Your task to perform on an android device: Check the weather Image 0: 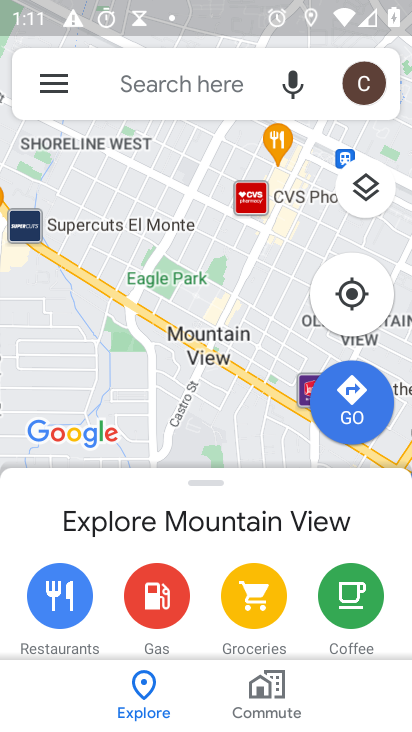
Step 0: press home button
Your task to perform on an android device: Check the weather Image 1: 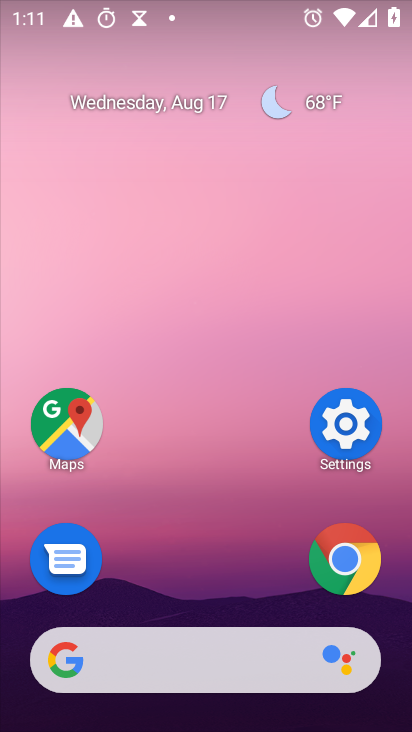
Step 1: click (156, 672)
Your task to perform on an android device: Check the weather Image 2: 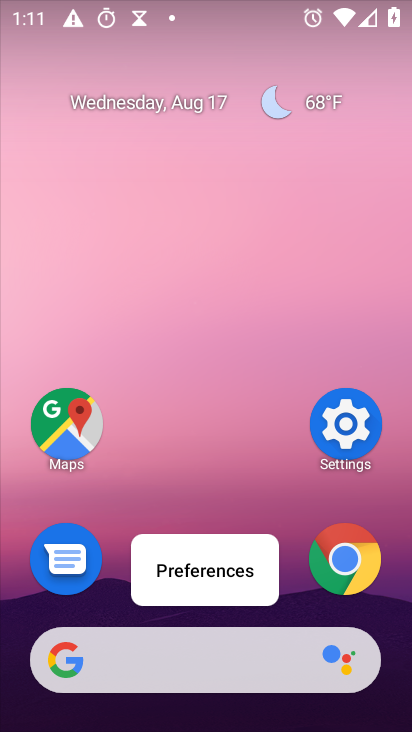
Step 2: click (169, 645)
Your task to perform on an android device: Check the weather Image 3: 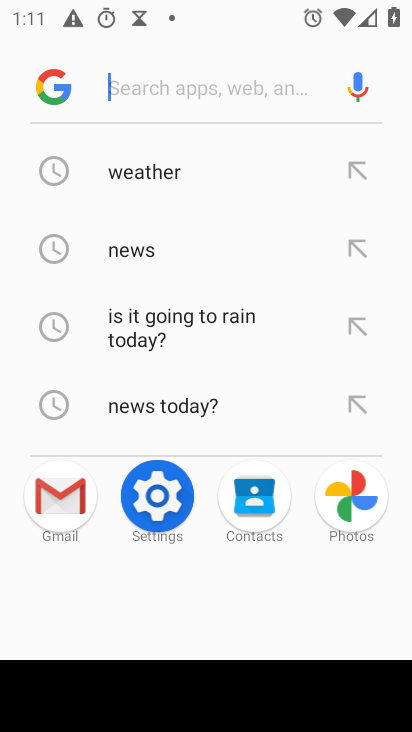
Step 3: click (129, 165)
Your task to perform on an android device: Check the weather Image 4: 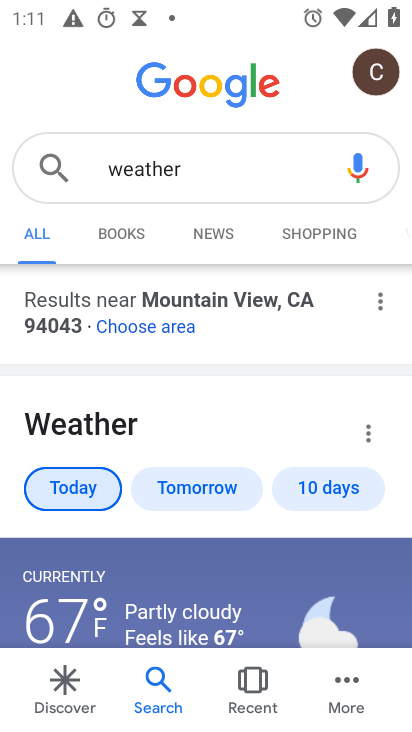
Step 4: task complete